Your task to perform on an android device: change timer sound Image 0: 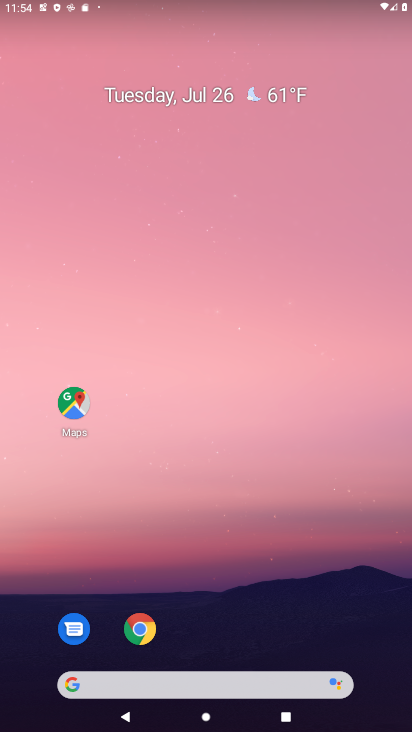
Step 0: drag from (248, 634) to (246, 42)
Your task to perform on an android device: change timer sound Image 1: 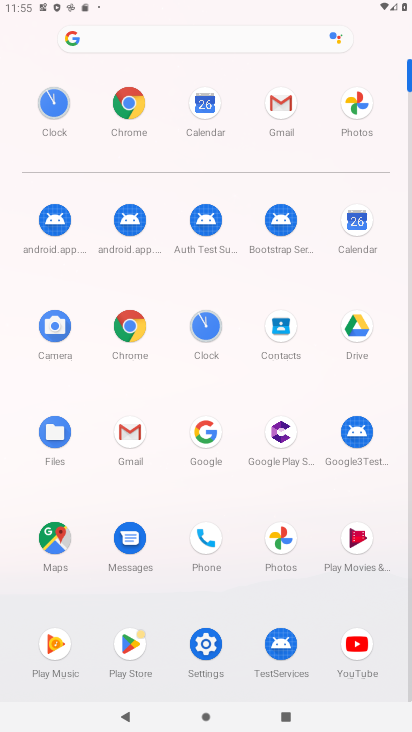
Step 1: click (223, 661)
Your task to perform on an android device: change timer sound Image 2: 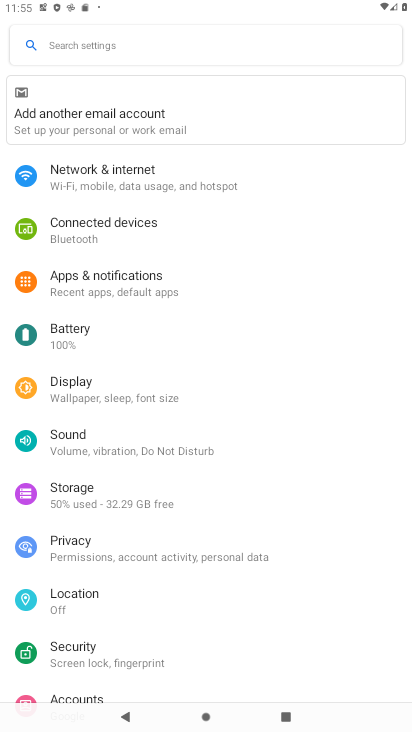
Step 2: task complete